Your task to perform on an android device: Check the weather Image 0: 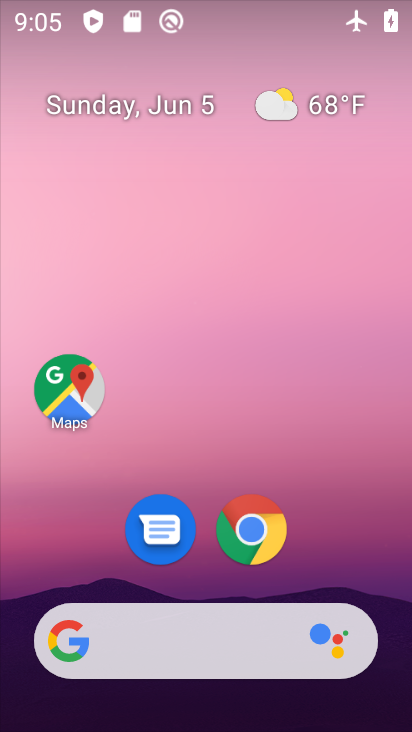
Step 0: click (208, 682)
Your task to perform on an android device: Check the weather Image 1: 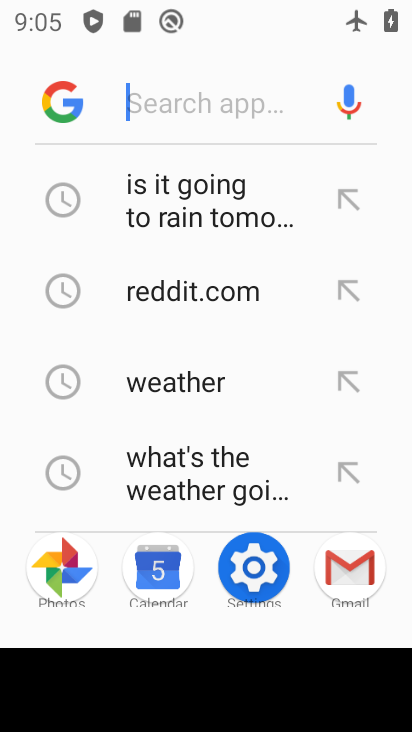
Step 1: click (215, 395)
Your task to perform on an android device: Check the weather Image 2: 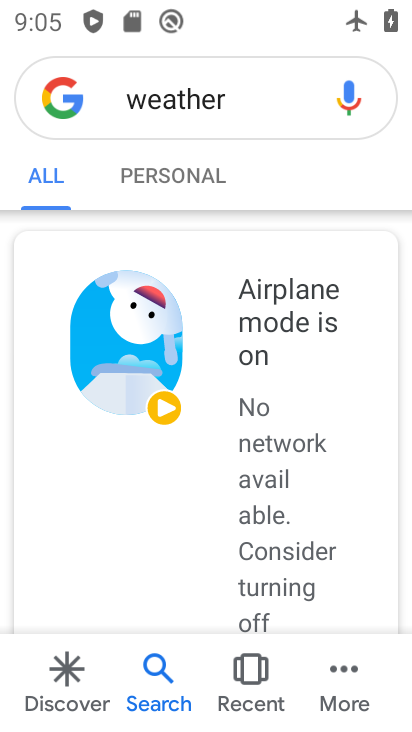
Step 2: task complete